Your task to perform on an android device: Go to Yahoo.com Image 0: 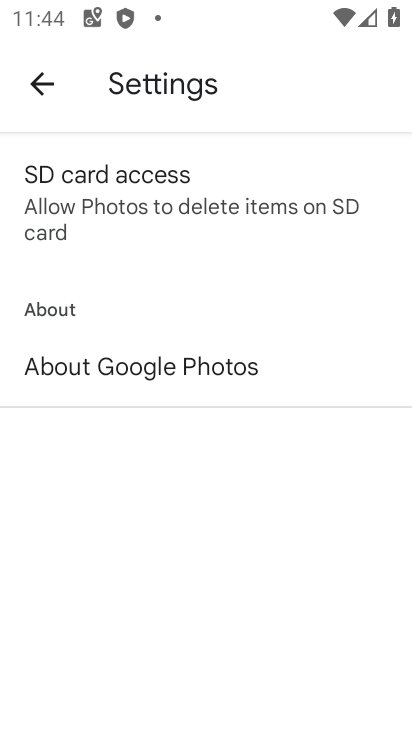
Step 0: press home button
Your task to perform on an android device: Go to Yahoo.com Image 1: 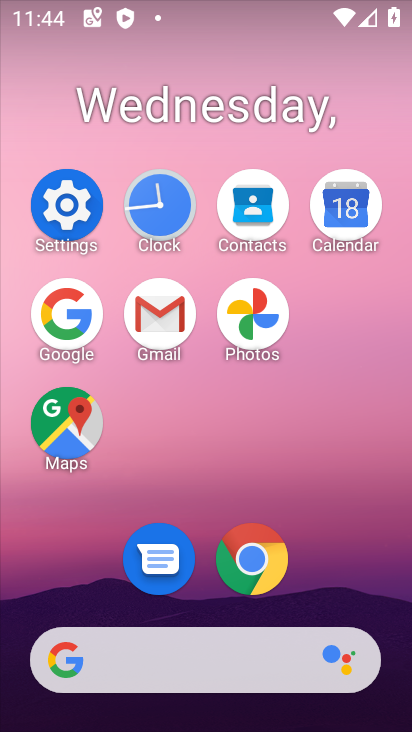
Step 1: click (246, 573)
Your task to perform on an android device: Go to Yahoo.com Image 2: 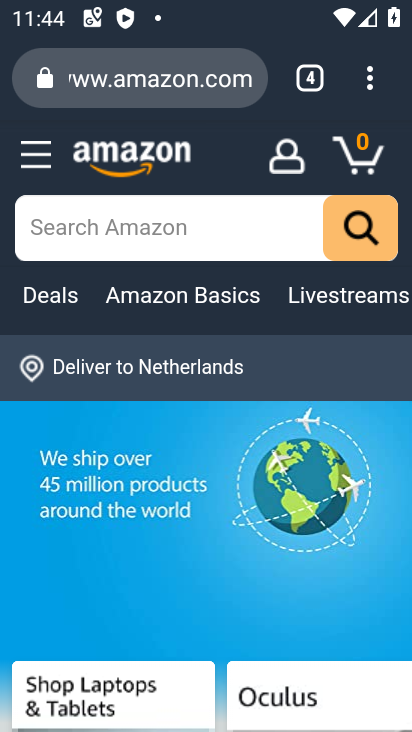
Step 2: click (323, 90)
Your task to perform on an android device: Go to Yahoo.com Image 3: 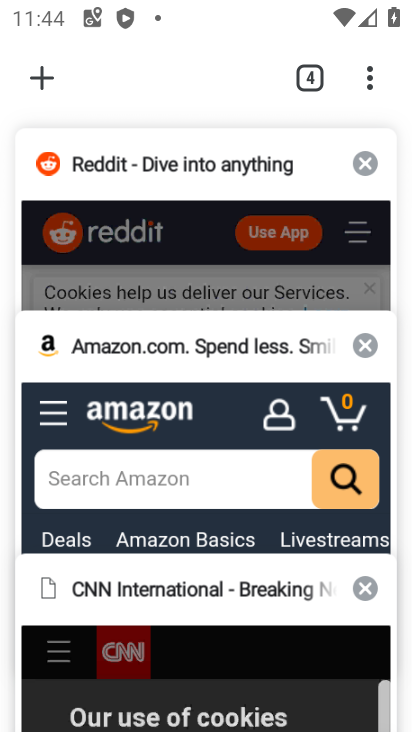
Step 3: click (42, 88)
Your task to perform on an android device: Go to Yahoo.com Image 4: 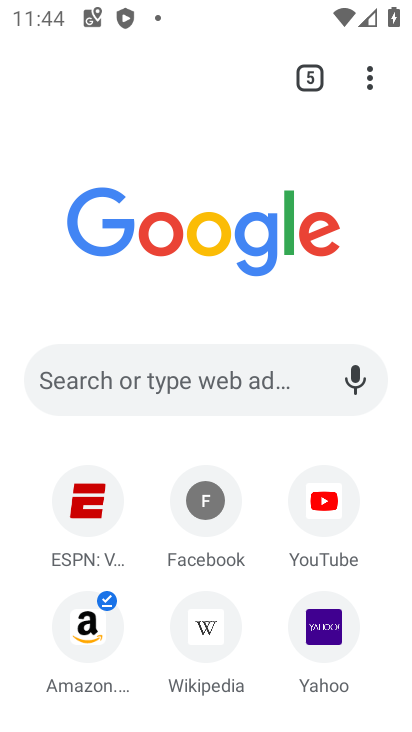
Step 4: click (317, 623)
Your task to perform on an android device: Go to Yahoo.com Image 5: 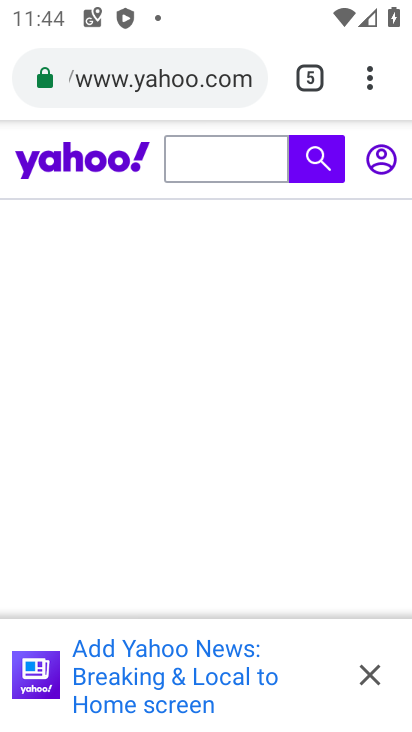
Step 5: task complete